Your task to perform on an android device: Open Chrome and go to settings Image 0: 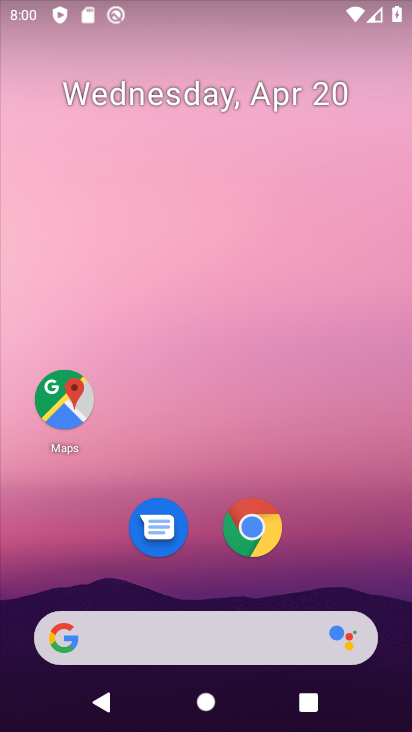
Step 0: click (265, 530)
Your task to perform on an android device: Open Chrome and go to settings Image 1: 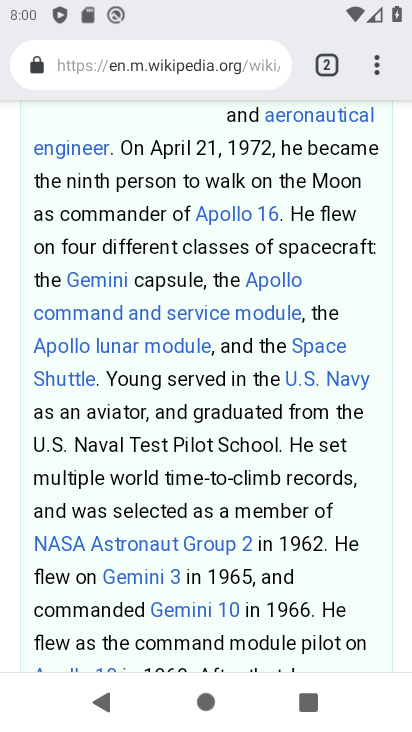
Step 1: click (372, 57)
Your task to perform on an android device: Open Chrome and go to settings Image 2: 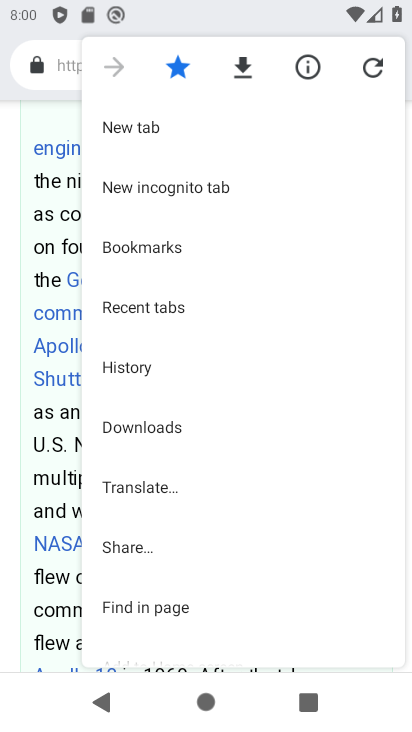
Step 2: drag from (212, 560) to (191, 322)
Your task to perform on an android device: Open Chrome and go to settings Image 3: 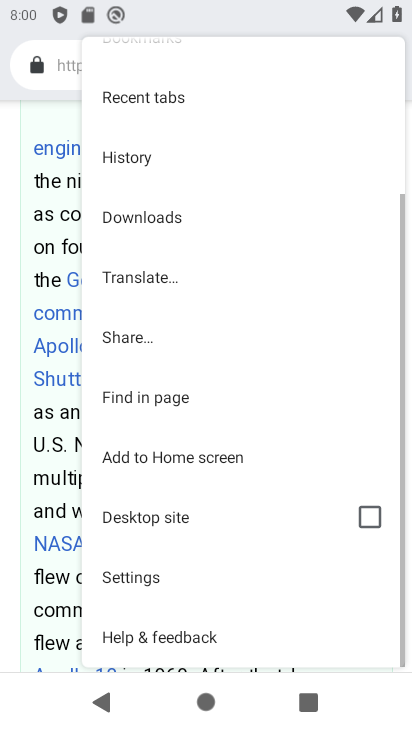
Step 3: click (157, 567)
Your task to perform on an android device: Open Chrome and go to settings Image 4: 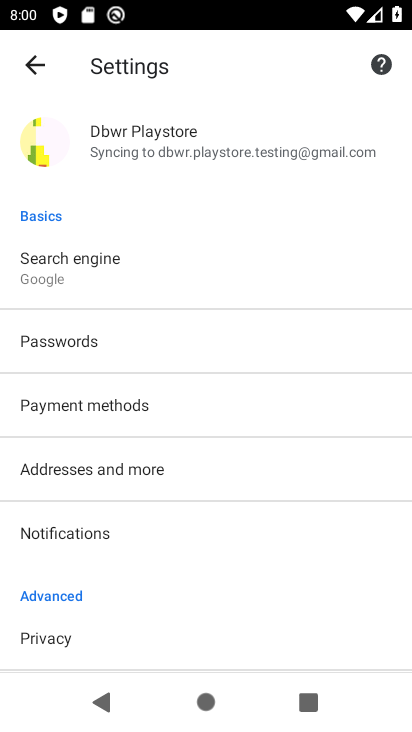
Step 4: task complete